Your task to perform on an android device: Open the Play Movies app and select the watchlist tab. Image 0: 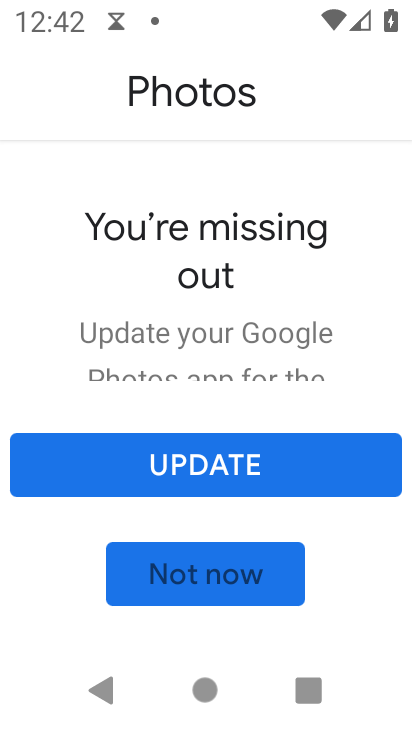
Step 0: press home button
Your task to perform on an android device: Open the Play Movies app and select the watchlist tab. Image 1: 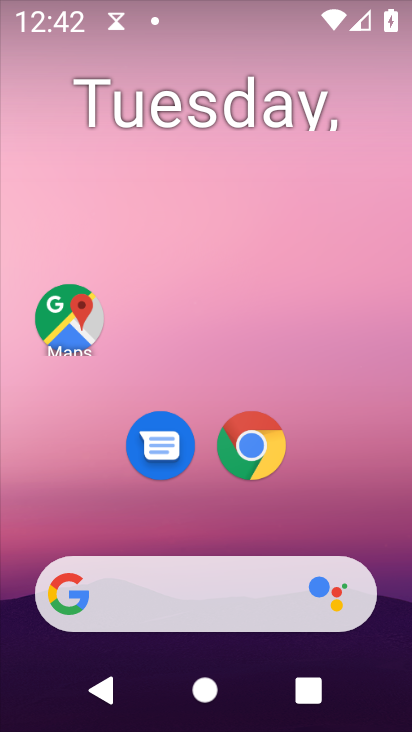
Step 1: drag from (299, 558) to (292, 2)
Your task to perform on an android device: Open the Play Movies app and select the watchlist tab. Image 2: 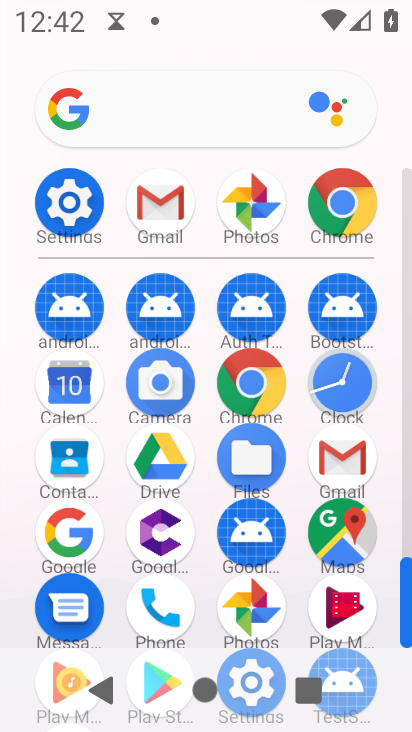
Step 2: click (350, 609)
Your task to perform on an android device: Open the Play Movies app and select the watchlist tab. Image 3: 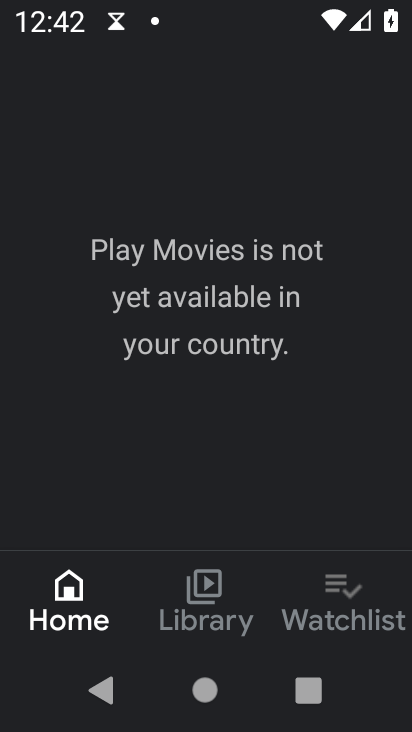
Step 3: click (355, 625)
Your task to perform on an android device: Open the Play Movies app and select the watchlist tab. Image 4: 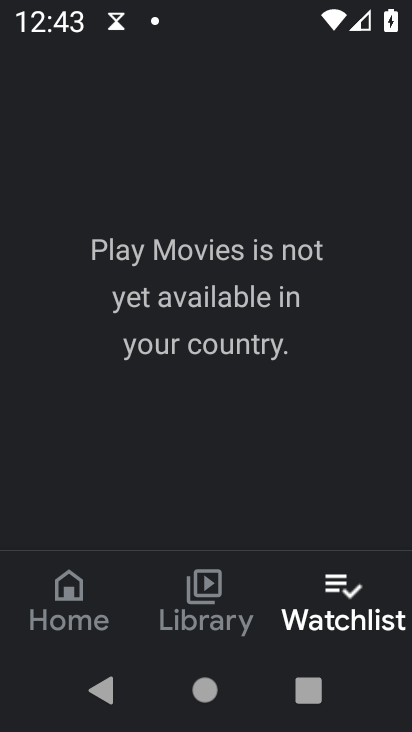
Step 4: task complete